Your task to perform on an android device: turn off improve location accuracy Image 0: 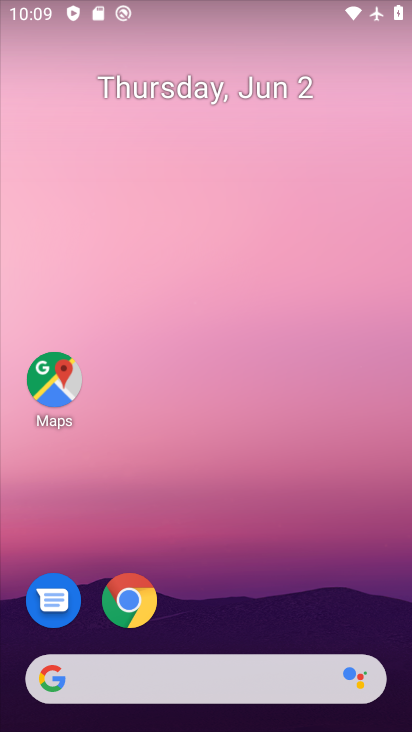
Step 0: drag from (151, 676) to (301, 210)
Your task to perform on an android device: turn off improve location accuracy Image 1: 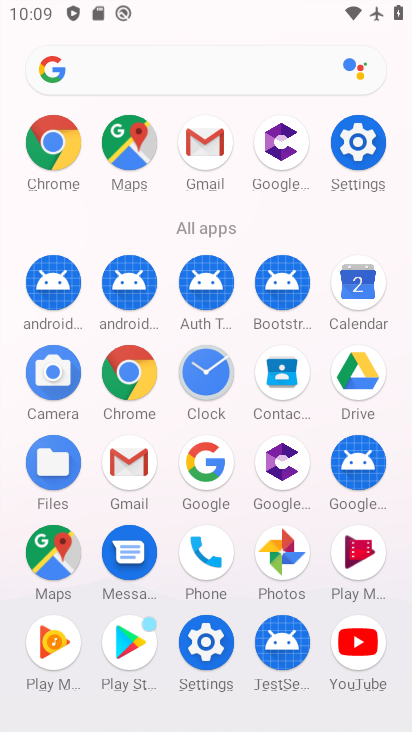
Step 1: click (348, 150)
Your task to perform on an android device: turn off improve location accuracy Image 2: 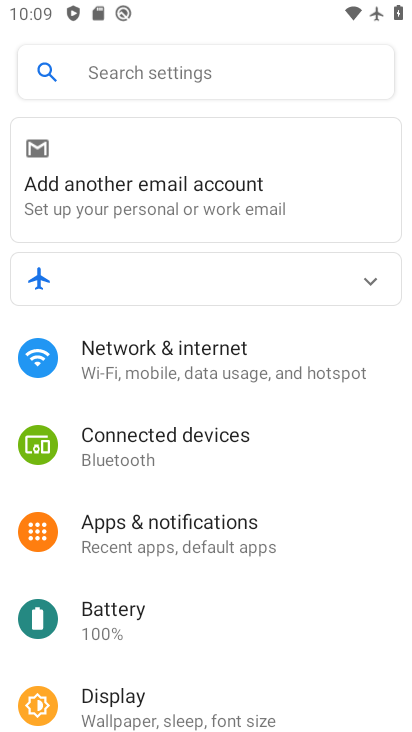
Step 2: drag from (174, 657) to (315, 297)
Your task to perform on an android device: turn off improve location accuracy Image 3: 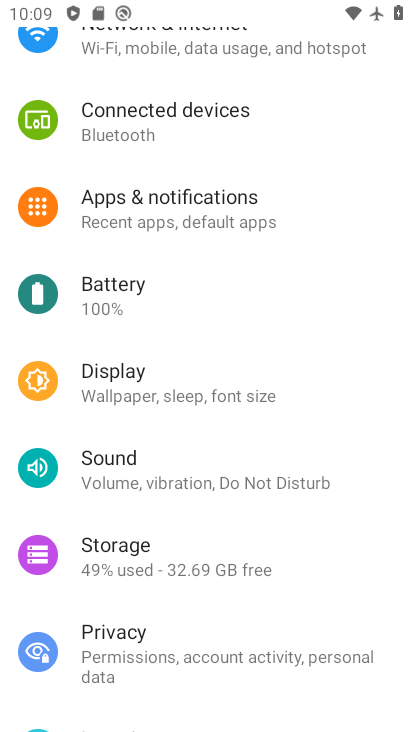
Step 3: drag from (201, 622) to (345, 118)
Your task to perform on an android device: turn off improve location accuracy Image 4: 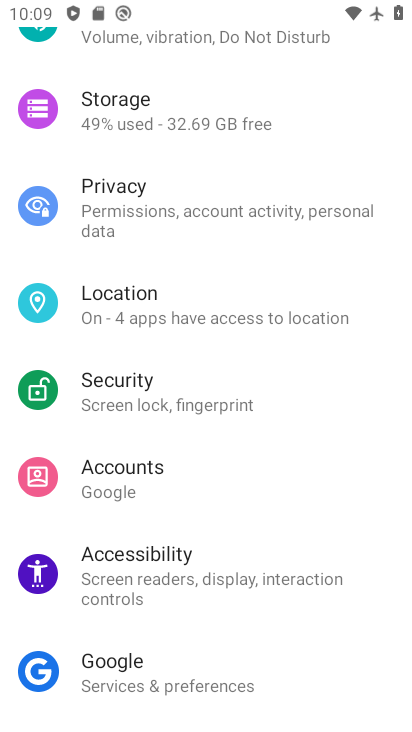
Step 4: click (157, 316)
Your task to perform on an android device: turn off improve location accuracy Image 5: 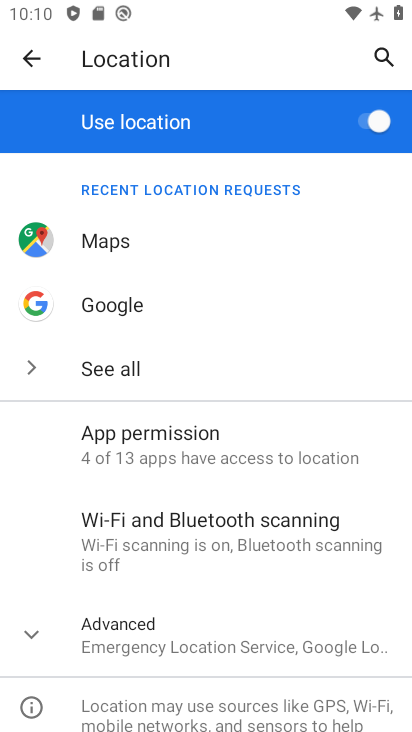
Step 5: click (209, 643)
Your task to perform on an android device: turn off improve location accuracy Image 6: 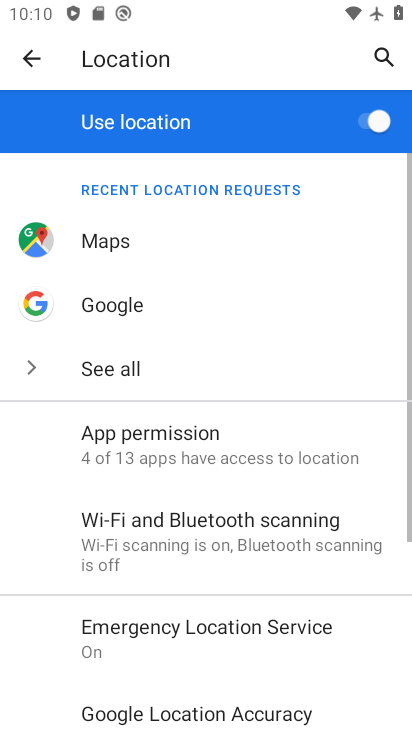
Step 6: drag from (229, 660) to (366, 256)
Your task to perform on an android device: turn off improve location accuracy Image 7: 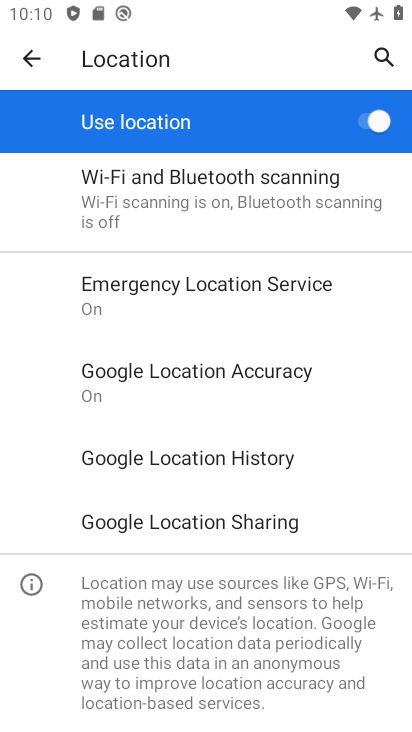
Step 7: click (156, 383)
Your task to perform on an android device: turn off improve location accuracy Image 8: 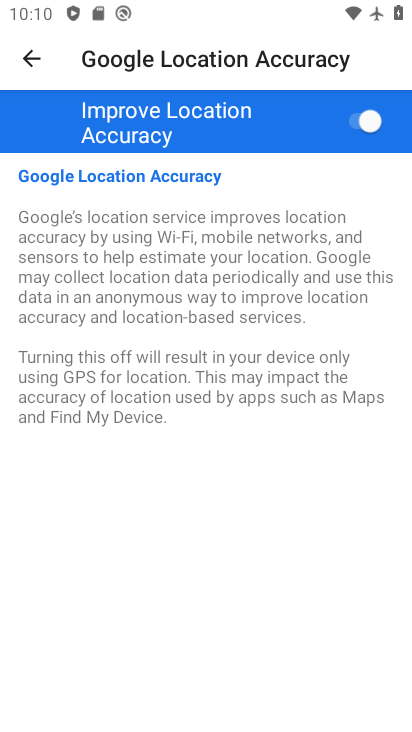
Step 8: click (355, 120)
Your task to perform on an android device: turn off improve location accuracy Image 9: 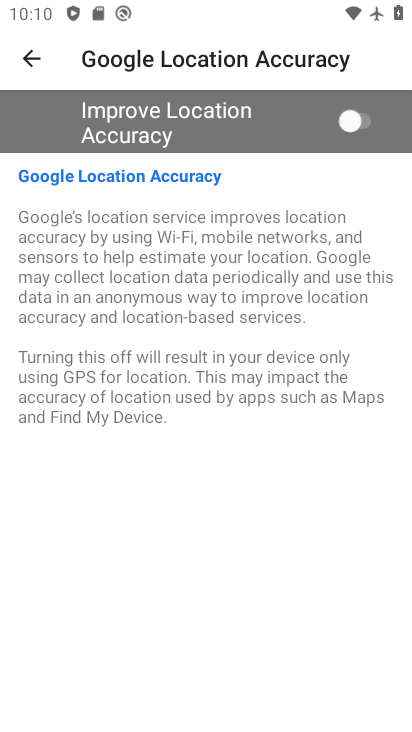
Step 9: task complete